Your task to perform on an android device: turn notification dots on Image 0: 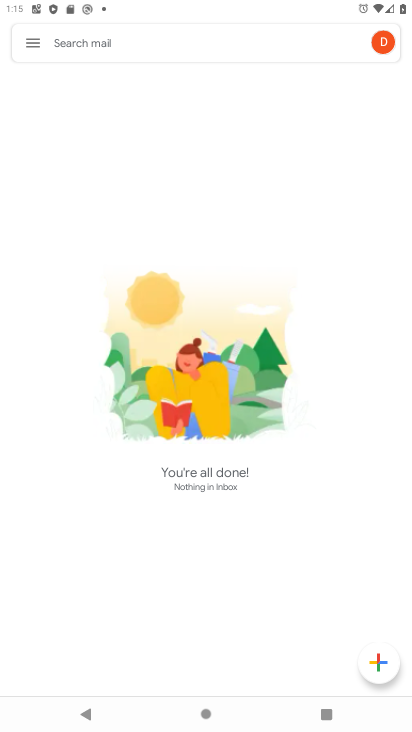
Step 0: press home button
Your task to perform on an android device: turn notification dots on Image 1: 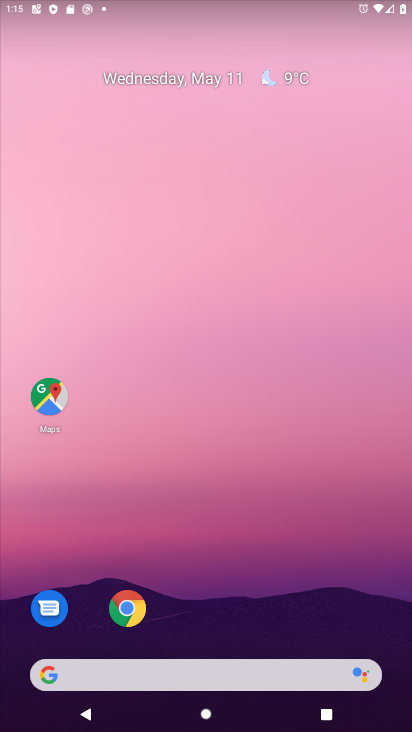
Step 1: drag from (304, 612) to (323, 173)
Your task to perform on an android device: turn notification dots on Image 2: 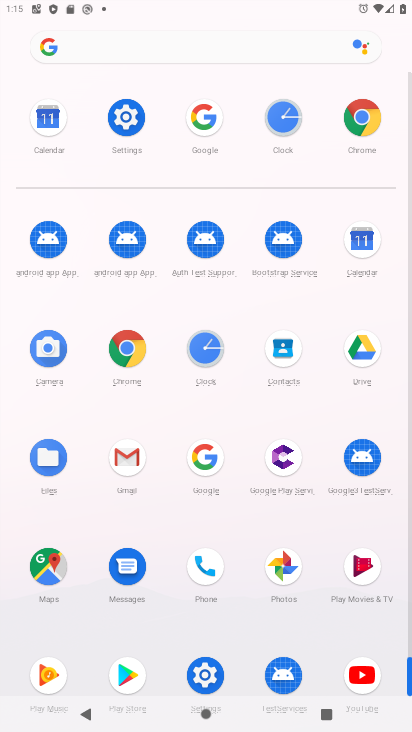
Step 2: click (133, 122)
Your task to perform on an android device: turn notification dots on Image 3: 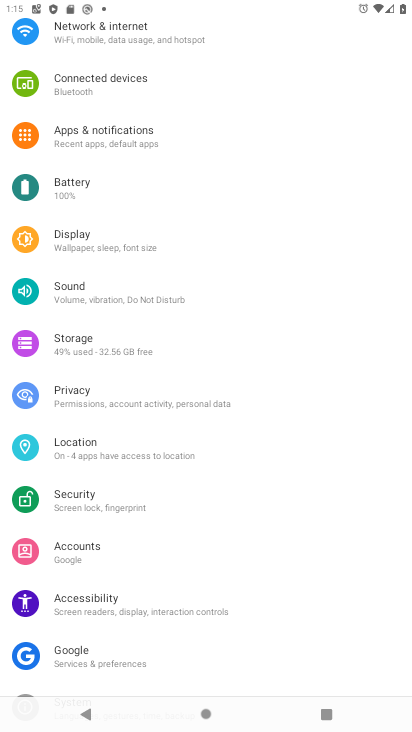
Step 3: drag from (185, 370) to (187, 284)
Your task to perform on an android device: turn notification dots on Image 4: 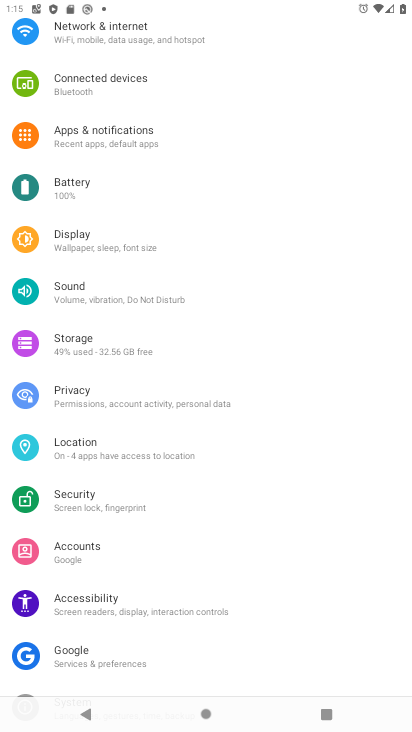
Step 4: click (156, 130)
Your task to perform on an android device: turn notification dots on Image 5: 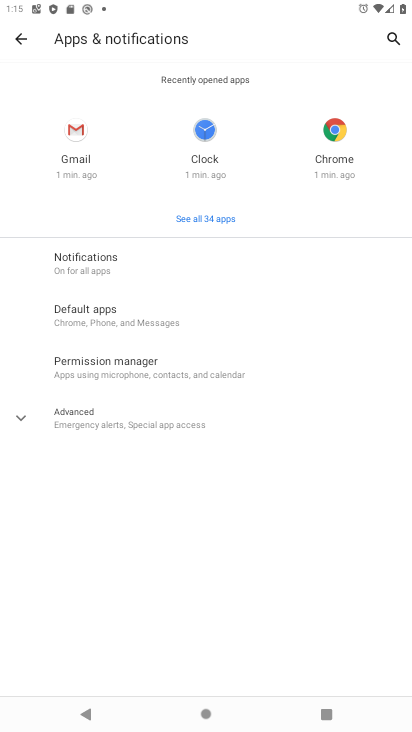
Step 5: click (113, 264)
Your task to perform on an android device: turn notification dots on Image 6: 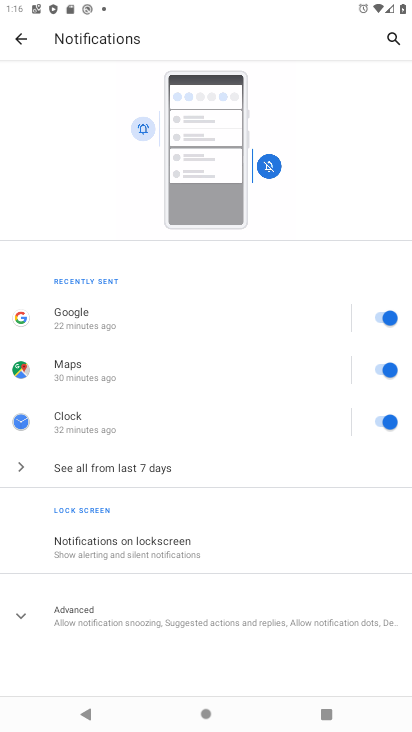
Step 6: drag from (155, 534) to (194, 321)
Your task to perform on an android device: turn notification dots on Image 7: 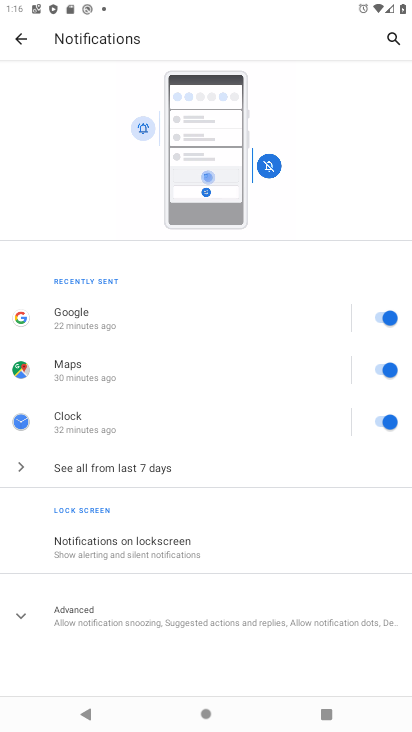
Step 7: click (144, 602)
Your task to perform on an android device: turn notification dots on Image 8: 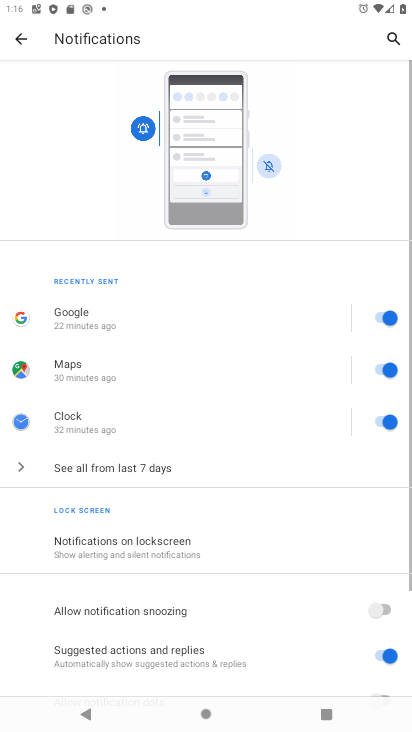
Step 8: drag from (171, 629) to (173, 419)
Your task to perform on an android device: turn notification dots on Image 9: 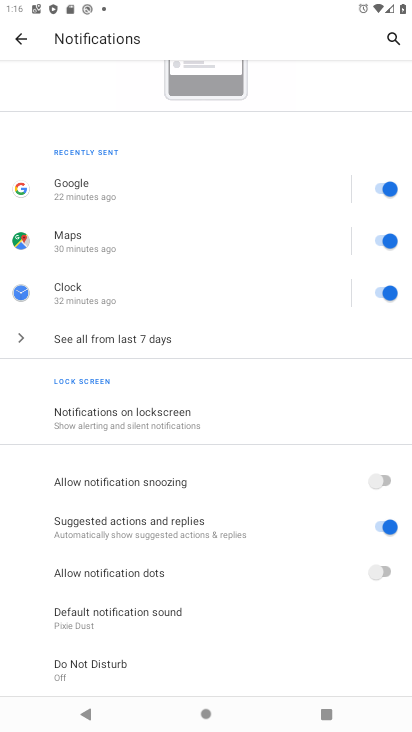
Step 9: click (389, 572)
Your task to perform on an android device: turn notification dots on Image 10: 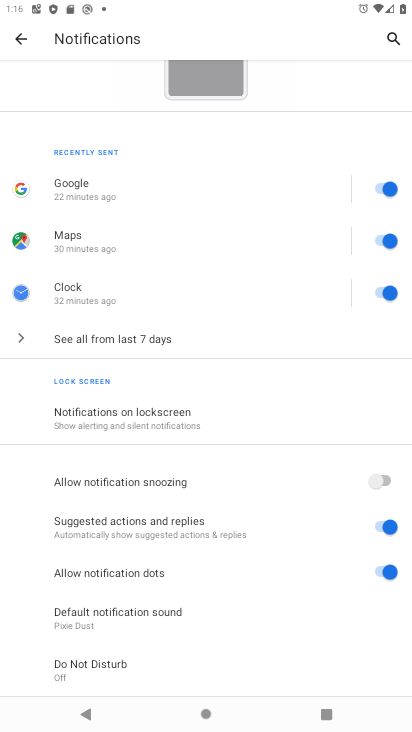
Step 10: task complete